Your task to perform on an android device: see sites visited before in the chrome app Image 0: 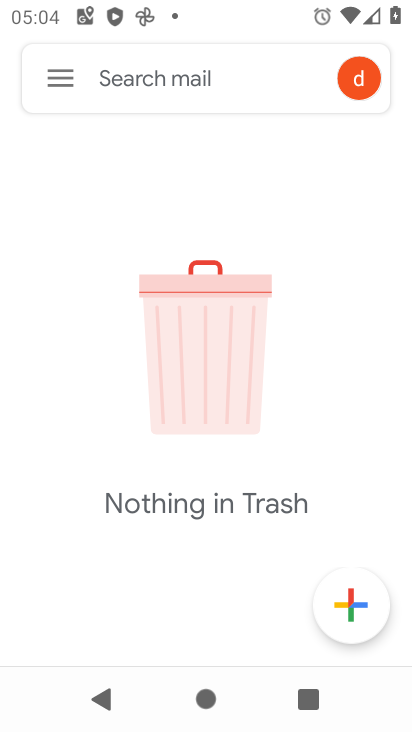
Step 0: press home button
Your task to perform on an android device: see sites visited before in the chrome app Image 1: 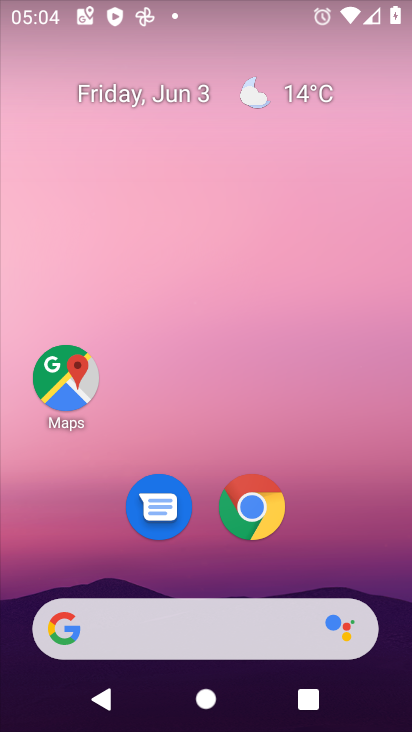
Step 1: drag from (382, 530) to (358, 156)
Your task to perform on an android device: see sites visited before in the chrome app Image 2: 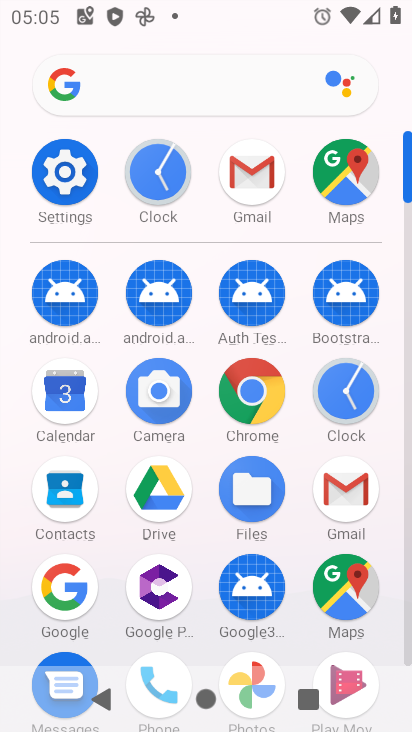
Step 2: click (233, 396)
Your task to perform on an android device: see sites visited before in the chrome app Image 3: 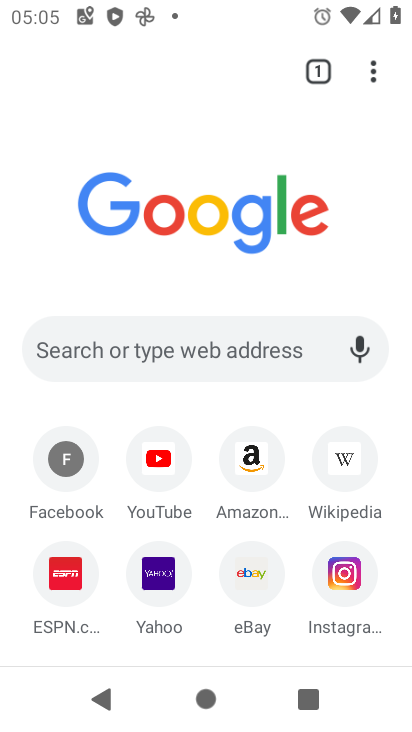
Step 3: task complete